Your task to perform on an android device: move a message to another label in the gmail app Image 0: 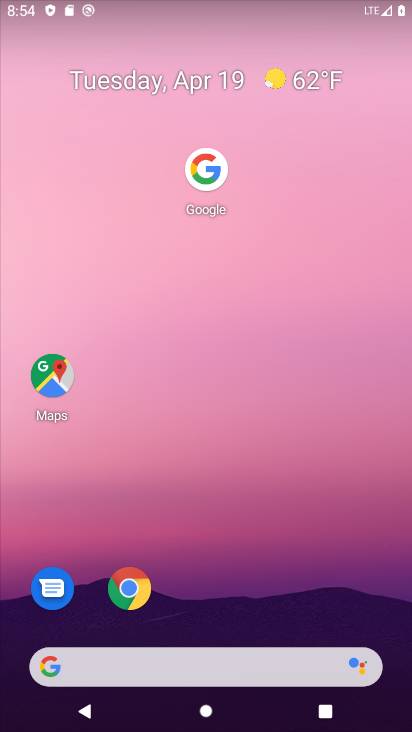
Step 0: drag from (253, 544) to (291, 10)
Your task to perform on an android device: move a message to another label in the gmail app Image 1: 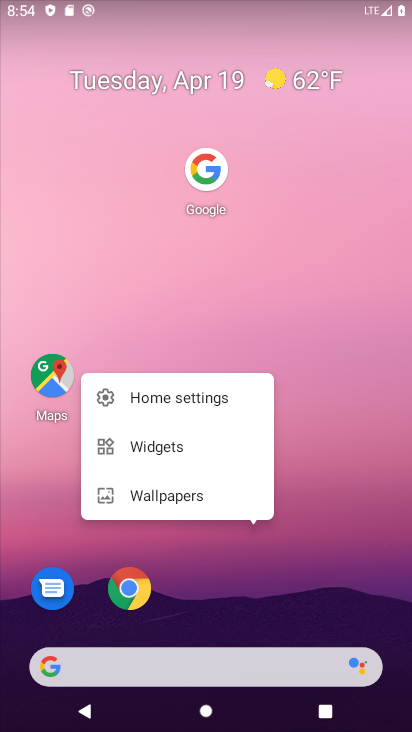
Step 1: click (293, 368)
Your task to perform on an android device: move a message to another label in the gmail app Image 2: 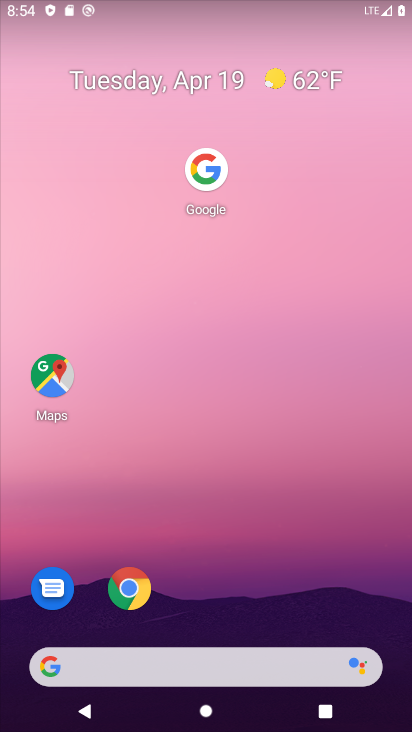
Step 2: click (293, 368)
Your task to perform on an android device: move a message to another label in the gmail app Image 3: 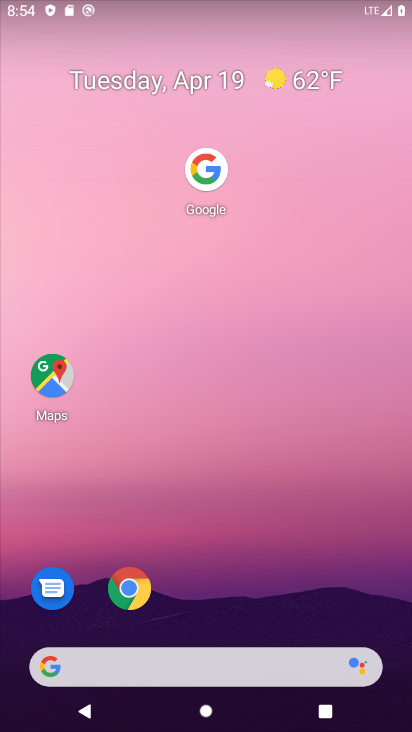
Step 3: drag from (268, 594) to (334, 47)
Your task to perform on an android device: move a message to another label in the gmail app Image 4: 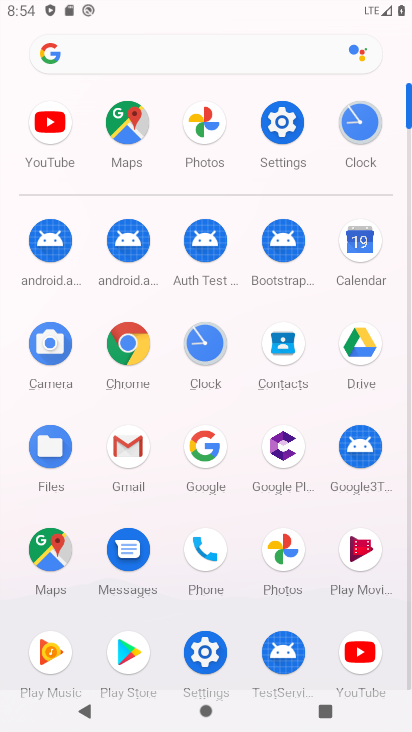
Step 4: click (123, 447)
Your task to perform on an android device: move a message to another label in the gmail app Image 5: 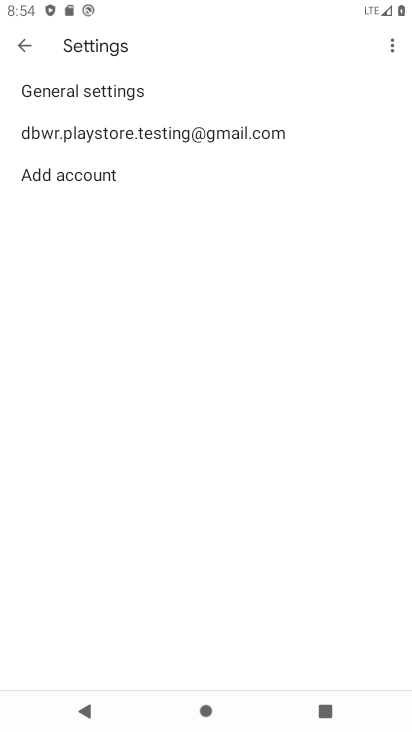
Step 5: click (23, 49)
Your task to perform on an android device: move a message to another label in the gmail app Image 6: 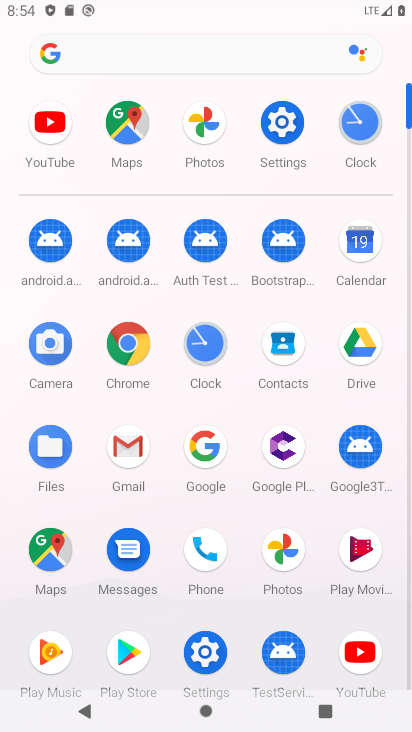
Step 6: click (127, 447)
Your task to perform on an android device: move a message to another label in the gmail app Image 7: 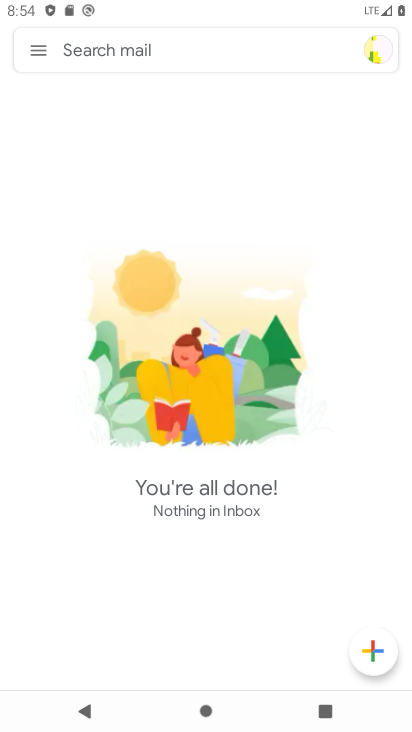
Step 7: click (38, 44)
Your task to perform on an android device: move a message to another label in the gmail app Image 8: 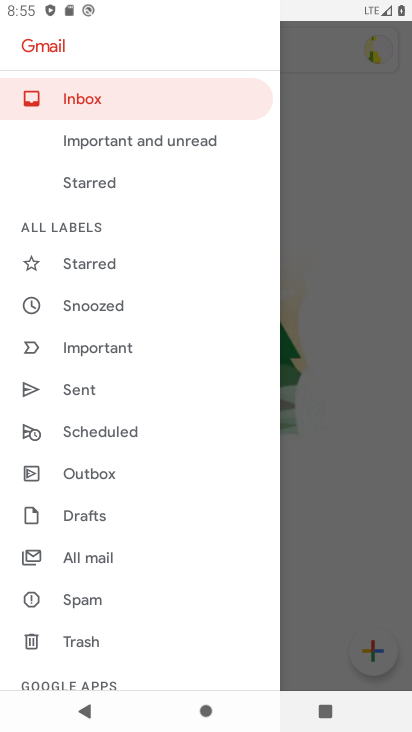
Step 8: click (97, 93)
Your task to perform on an android device: move a message to another label in the gmail app Image 9: 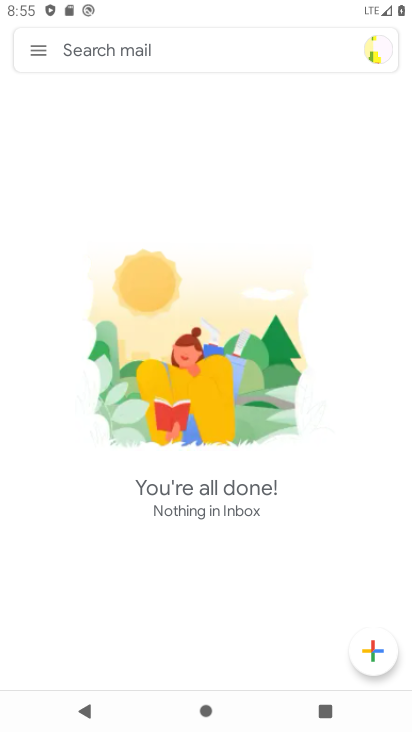
Step 9: task complete